Your task to perform on an android device: Open Google Maps Image 0: 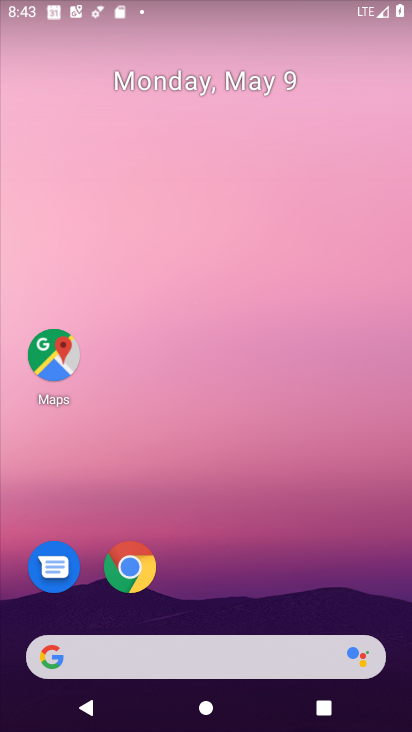
Step 0: drag from (176, 618) to (271, 172)
Your task to perform on an android device: Open Google Maps Image 1: 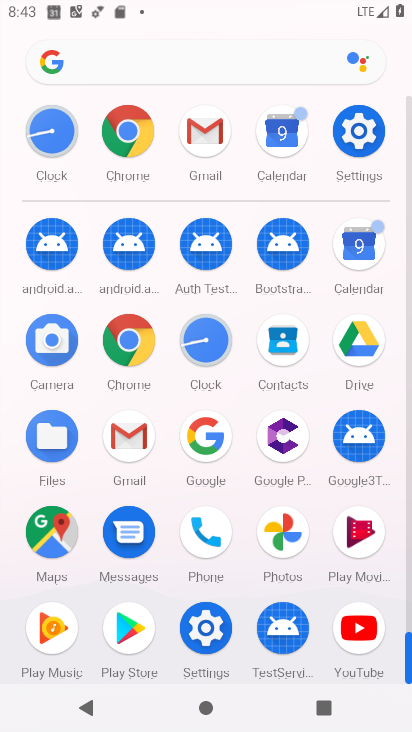
Step 1: click (44, 532)
Your task to perform on an android device: Open Google Maps Image 2: 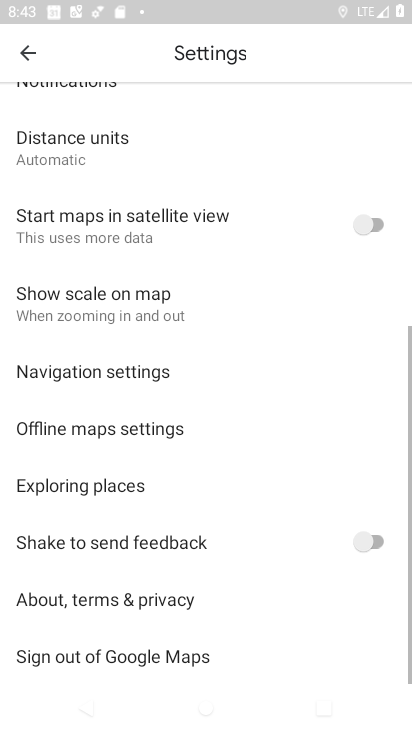
Step 2: click (28, 46)
Your task to perform on an android device: Open Google Maps Image 3: 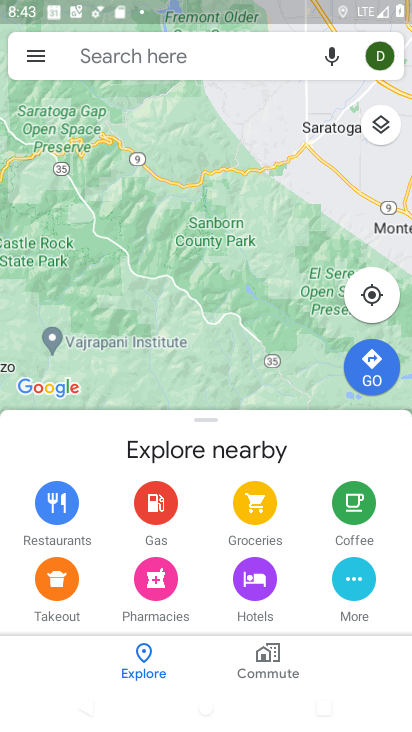
Step 3: task complete